Your task to perform on an android device: Search for "razer kraken" on newegg.com, select the first entry, and add it to the cart. Image 0: 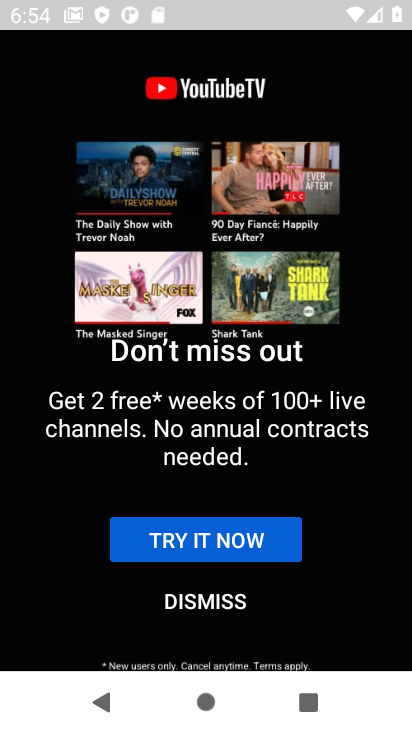
Step 0: press home button
Your task to perform on an android device: Search for "razer kraken" on newegg.com, select the first entry, and add it to the cart. Image 1: 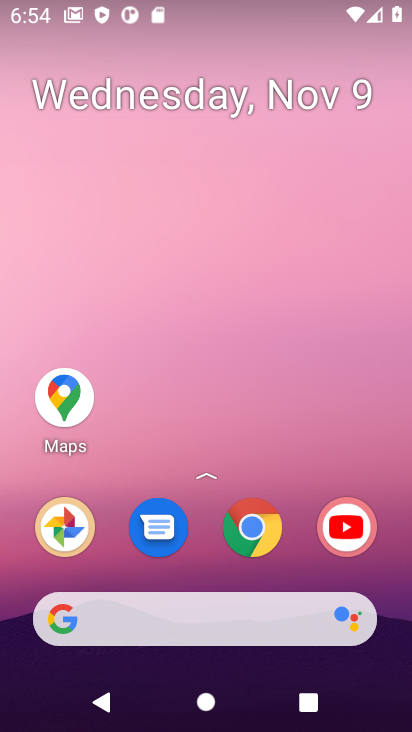
Step 1: click (250, 535)
Your task to perform on an android device: Search for "razer kraken" on newegg.com, select the first entry, and add it to the cart. Image 2: 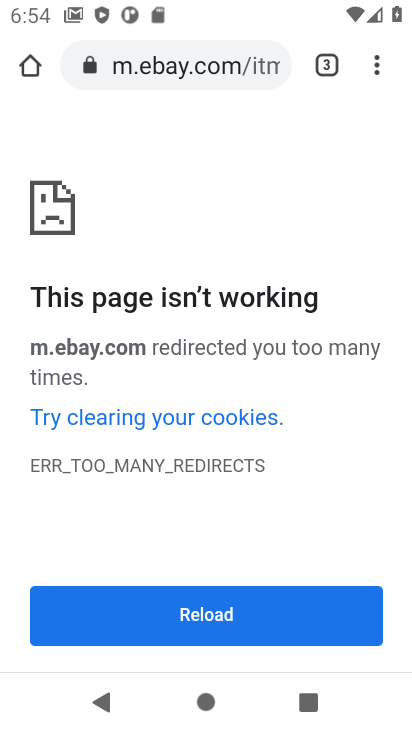
Step 2: click (160, 62)
Your task to perform on an android device: Search for "razer kraken" on newegg.com, select the first entry, and add it to the cart. Image 3: 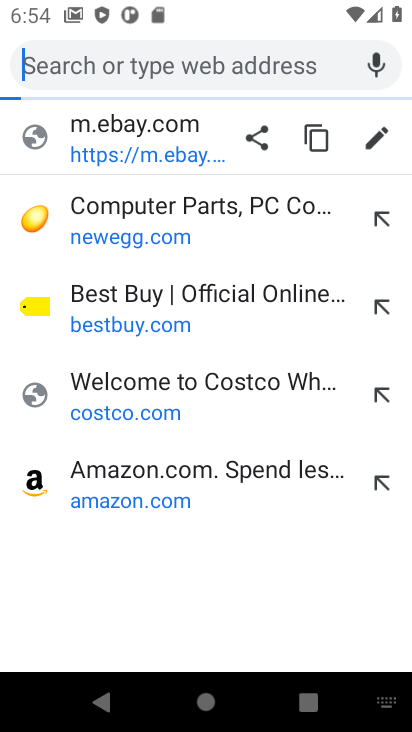
Step 3: click (113, 233)
Your task to perform on an android device: Search for "razer kraken" on newegg.com, select the first entry, and add it to the cart. Image 4: 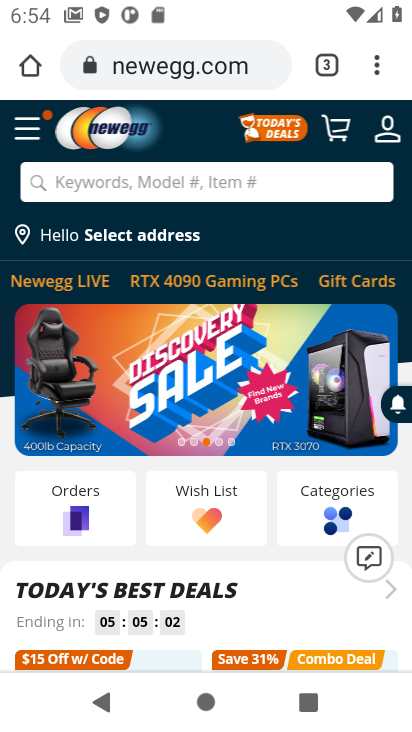
Step 4: click (230, 183)
Your task to perform on an android device: Search for "razer kraken" on newegg.com, select the first entry, and add it to the cart. Image 5: 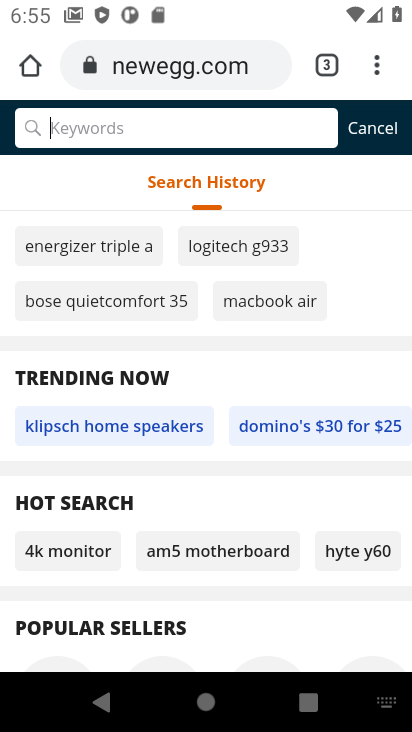
Step 5: type "razer kraken"
Your task to perform on an android device: Search for "razer kraken" on newegg.com, select the first entry, and add it to the cart. Image 6: 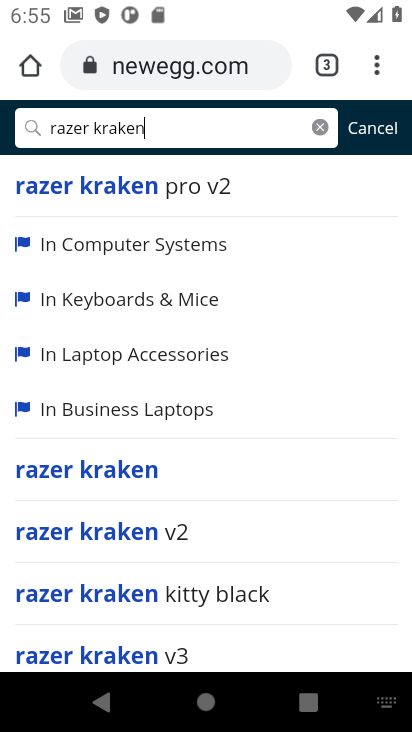
Step 6: click (87, 475)
Your task to perform on an android device: Search for "razer kraken" on newegg.com, select the first entry, and add it to the cart. Image 7: 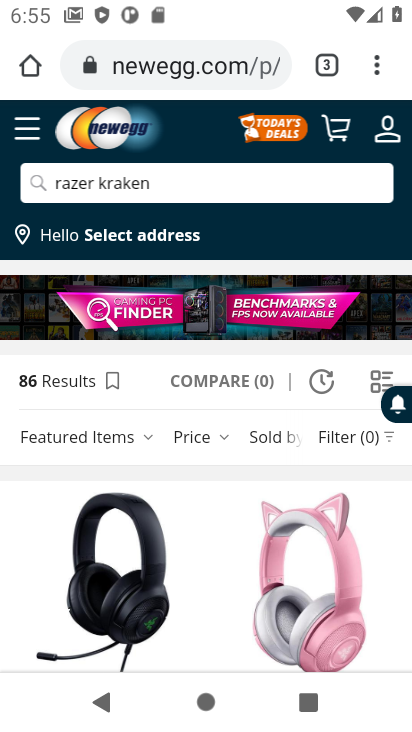
Step 7: drag from (104, 543) to (85, 318)
Your task to perform on an android device: Search for "razer kraken" on newegg.com, select the first entry, and add it to the cart. Image 8: 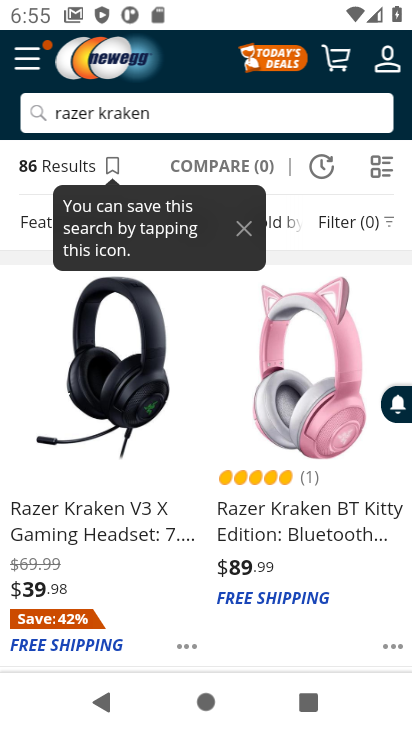
Step 8: click (69, 405)
Your task to perform on an android device: Search for "razer kraken" on newegg.com, select the first entry, and add it to the cart. Image 9: 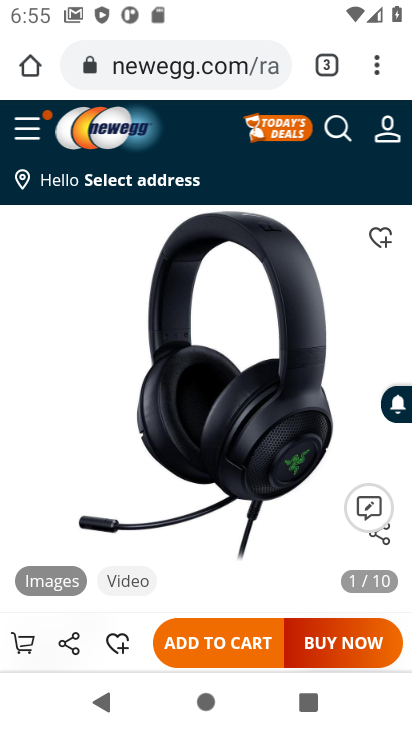
Step 9: click (192, 642)
Your task to perform on an android device: Search for "razer kraken" on newegg.com, select the first entry, and add it to the cart. Image 10: 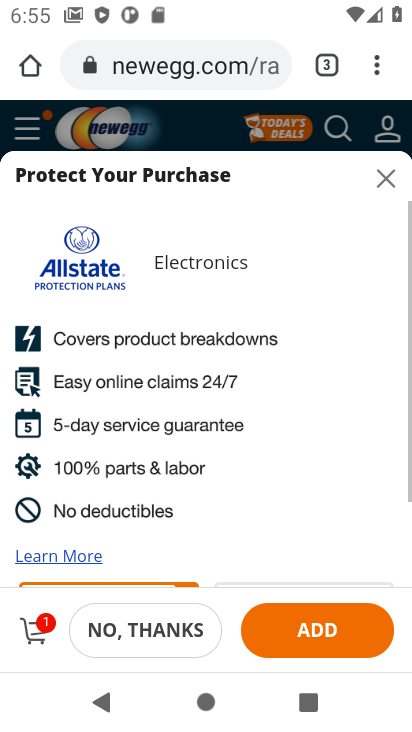
Step 10: task complete